Your task to perform on an android device: turn on data saver in the chrome app Image 0: 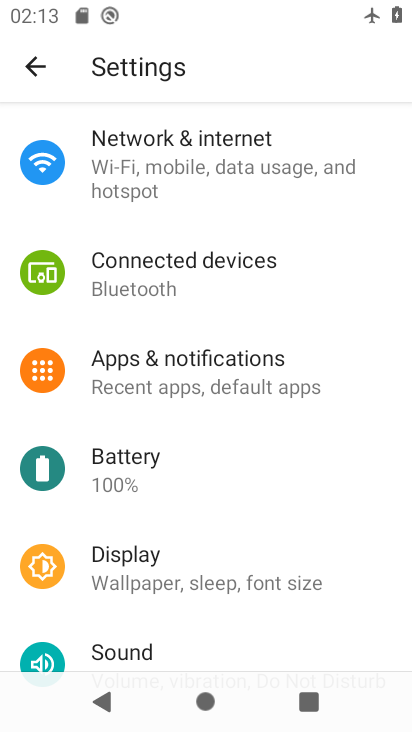
Step 0: press home button
Your task to perform on an android device: turn on data saver in the chrome app Image 1: 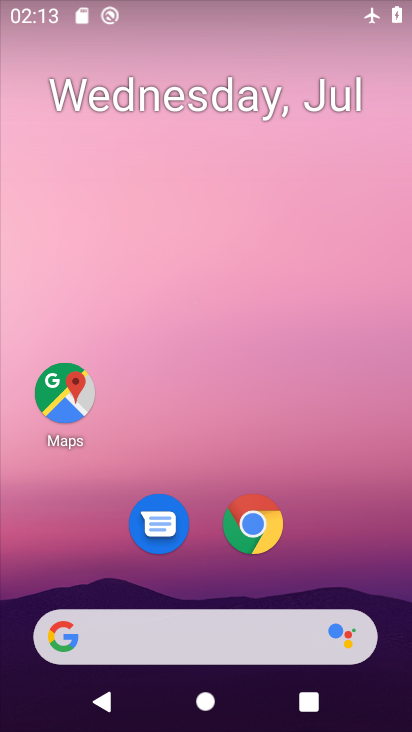
Step 1: click (266, 531)
Your task to perform on an android device: turn on data saver in the chrome app Image 2: 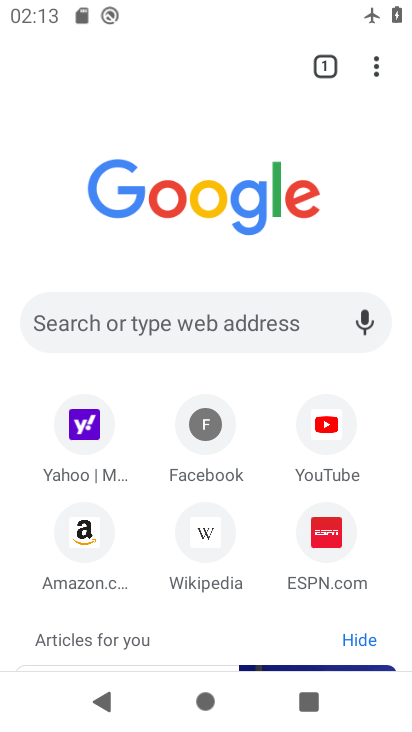
Step 2: click (379, 66)
Your task to perform on an android device: turn on data saver in the chrome app Image 3: 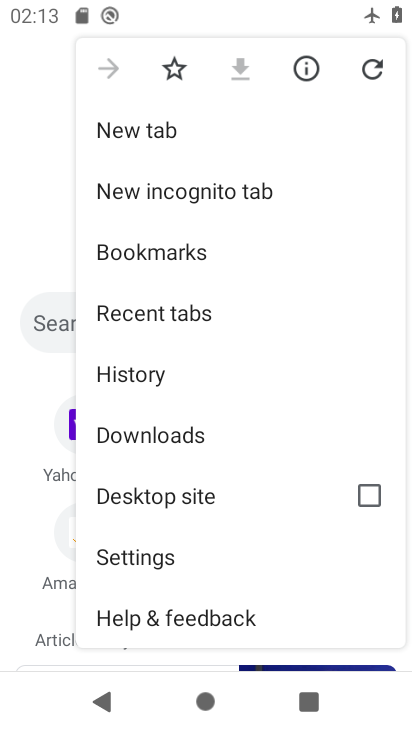
Step 3: click (159, 556)
Your task to perform on an android device: turn on data saver in the chrome app Image 4: 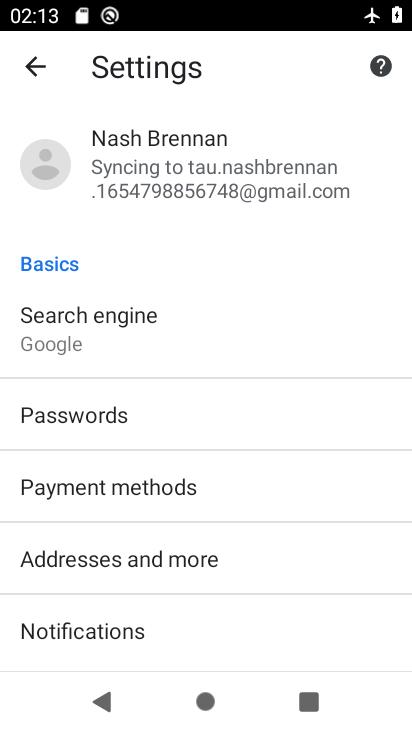
Step 4: drag from (186, 595) to (229, 122)
Your task to perform on an android device: turn on data saver in the chrome app Image 5: 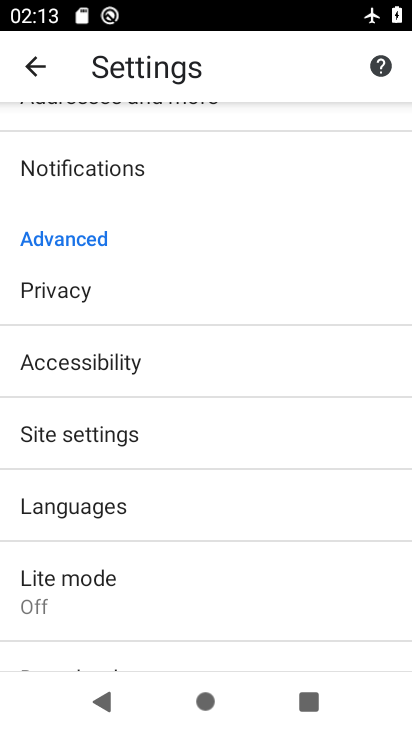
Step 5: click (144, 597)
Your task to perform on an android device: turn on data saver in the chrome app Image 6: 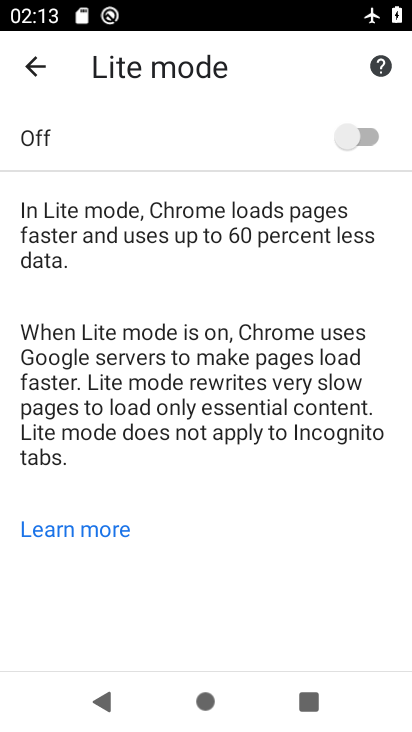
Step 6: click (357, 137)
Your task to perform on an android device: turn on data saver in the chrome app Image 7: 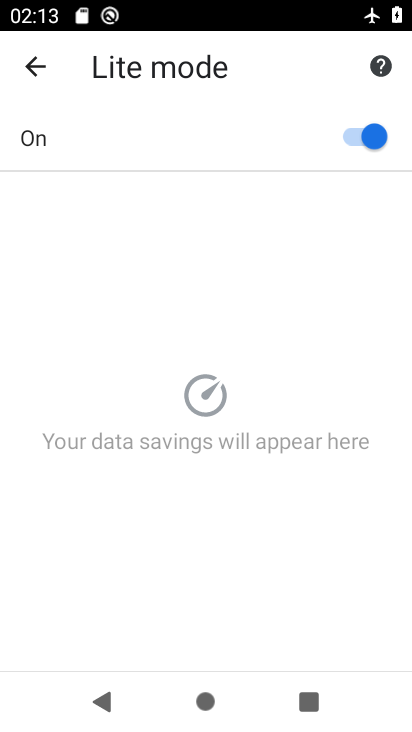
Step 7: task complete